Your task to perform on an android device: turn off wifi Image 0: 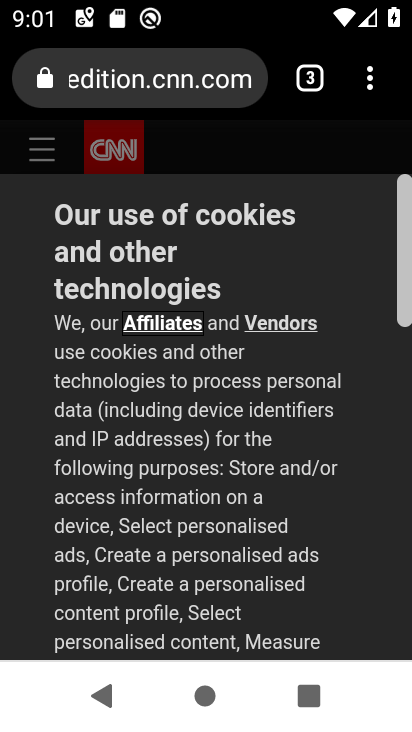
Step 0: press home button
Your task to perform on an android device: turn off wifi Image 1: 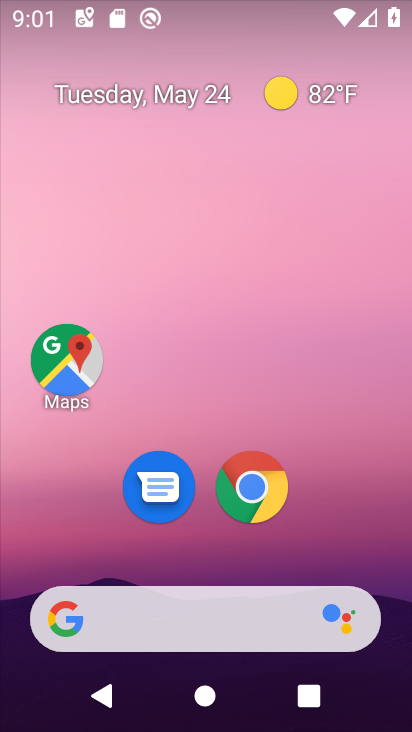
Step 1: drag from (337, 537) to (355, 185)
Your task to perform on an android device: turn off wifi Image 2: 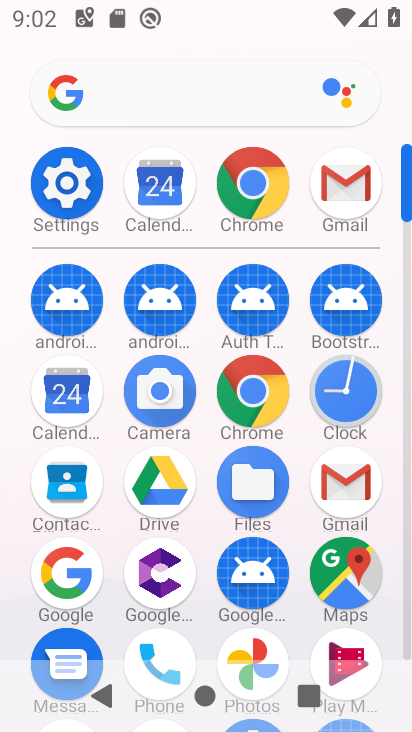
Step 2: click (62, 186)
Your task to perform on an android device: turn off wifi Image 3: 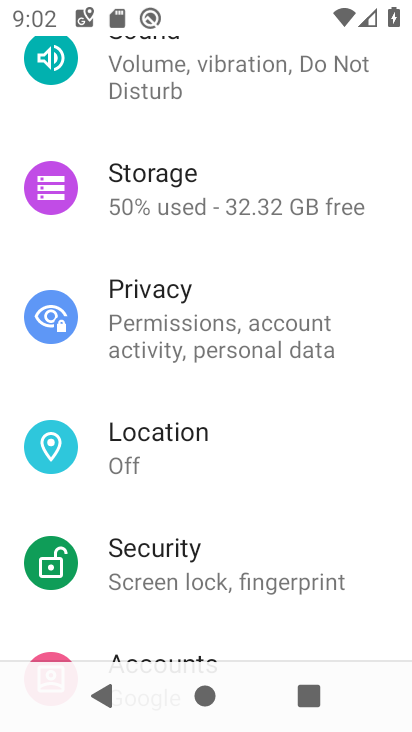
Step 3: drag from (322, 171) to (288, 596)
Your task to perform on an android device: turn off wifi Image 4: 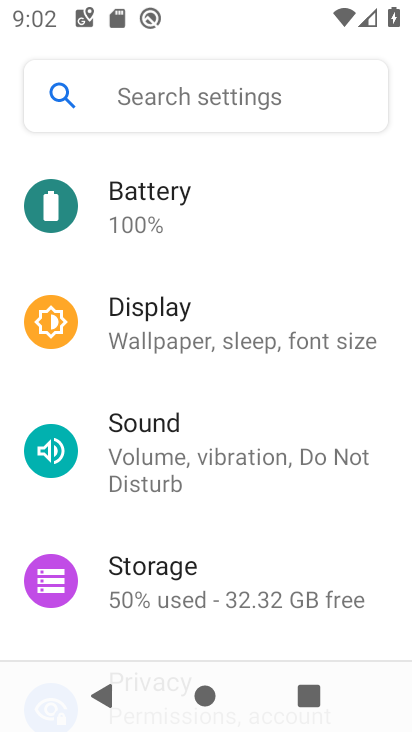
Step 4: drag from (306, 172) to (304, 596)
Your task to perform on an android device: turn off wifi Image 5: 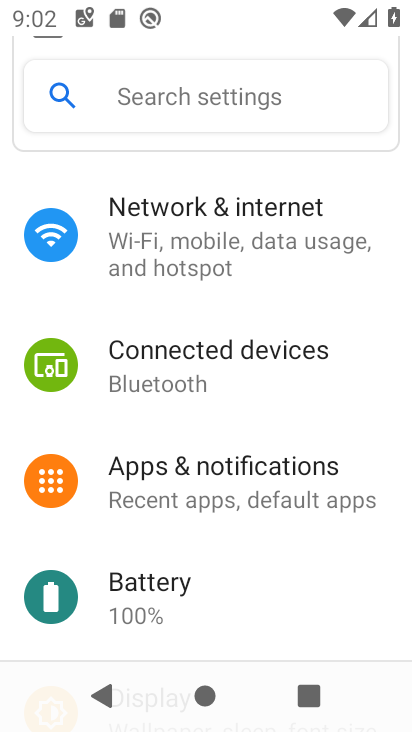
Step 5: click (244, 245)
Your task to perform on an android device: turn off wifi Image 6: 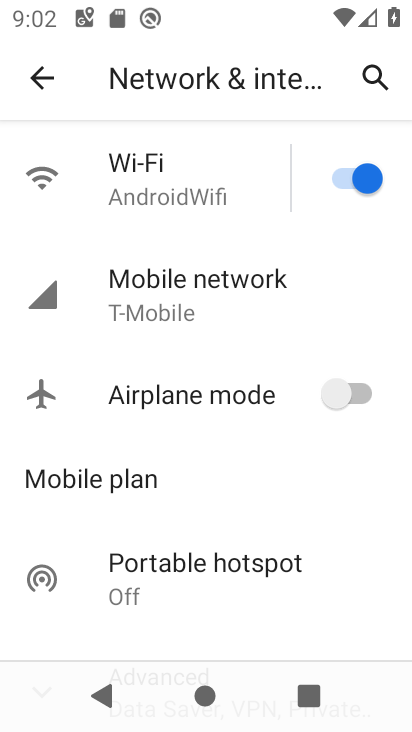
Step 6: click (252, 187)
Your task to perform on an android device: turn off wifi Image 7: 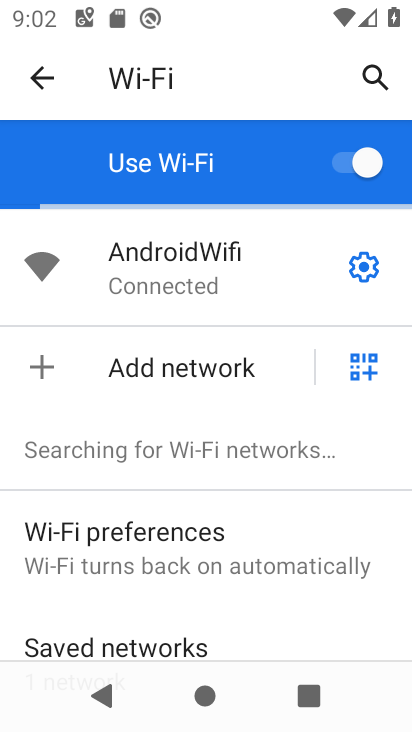
Step 7: click (357, 164)
Your task to perform on an android device: turn off wifi Image 8: 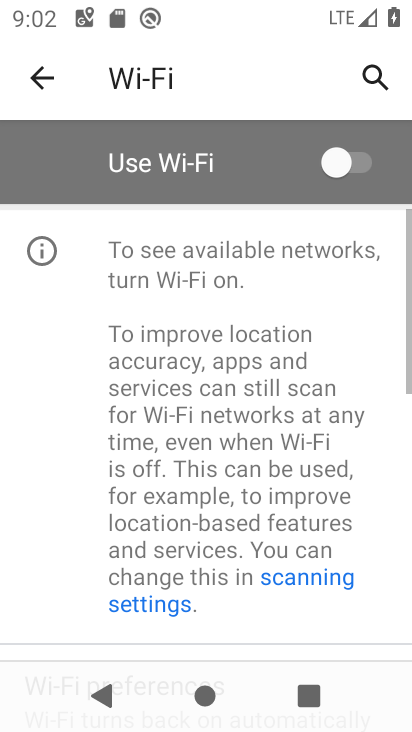
Step 8: task complete